Your task to perform on an android device: Open settings on Google Maps Image 0: 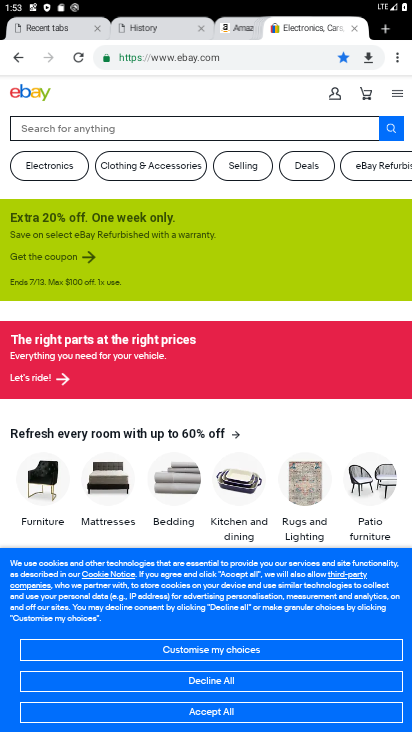
Step 0: press home button
Your task to perform on an android device: Open settings on Google Maps Image 1: 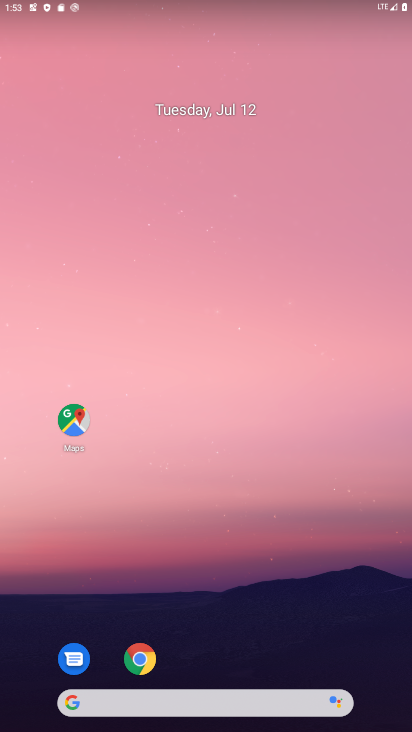
Step 1: drag from (224, 708) to (227, 166)
Your task to perform on an android device: Open settings on Google Maps Image 2: 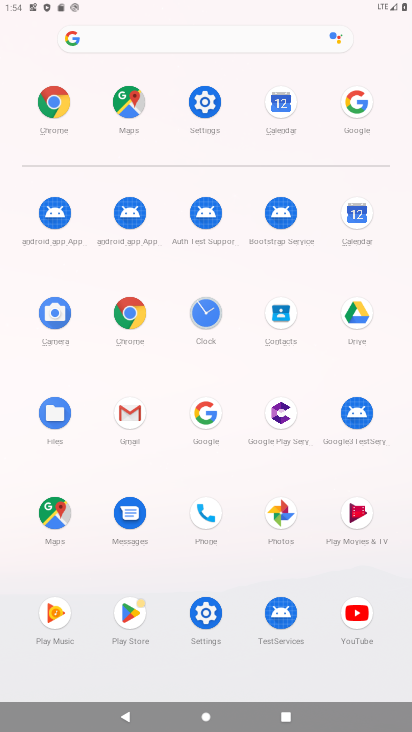
Step 2: click (45, 509)
Your task to perform on an android device: Open settings on Google Maps Image 3: 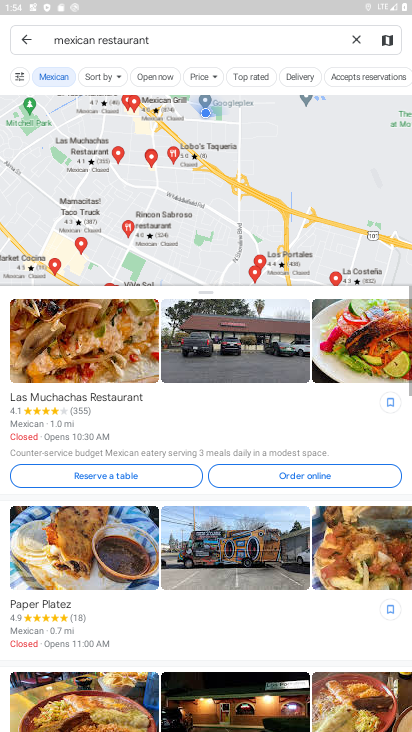
Step 3: click (23, 39)
Your task to perform on an android device: Open settings on Google Maps Image 4: 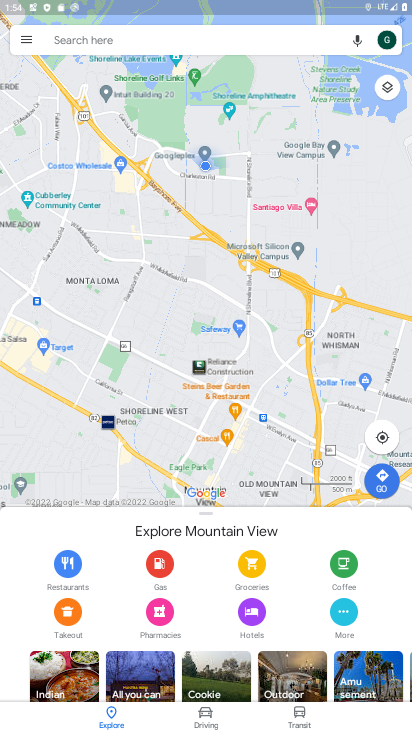
Step 4: click (28, 43)
Your task to perform on an android device: Open settings on Google Maps Image 5: 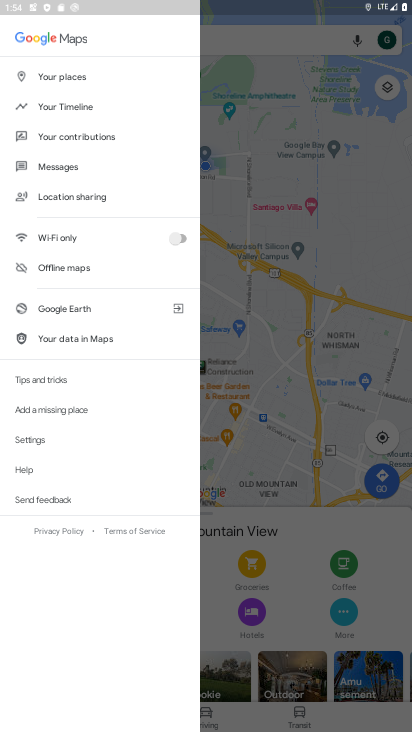
Step 5: click (29, 441)
Your task to perform on an android device: Open settings on Google Maps Image 6: 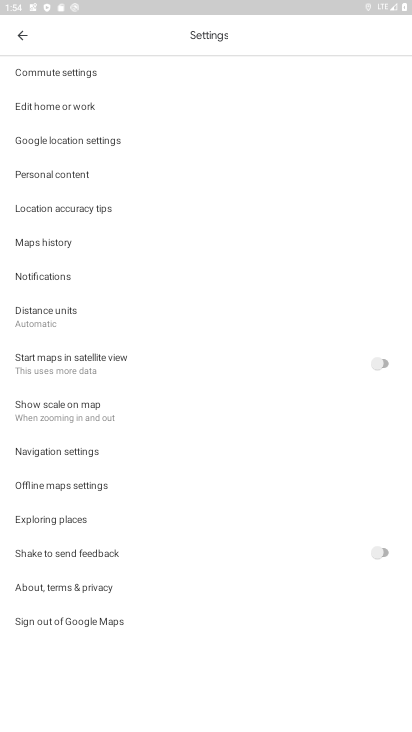
Step 6: task complete